Your task to perform on an android device: turn off javascript in the chrome app Image 0: 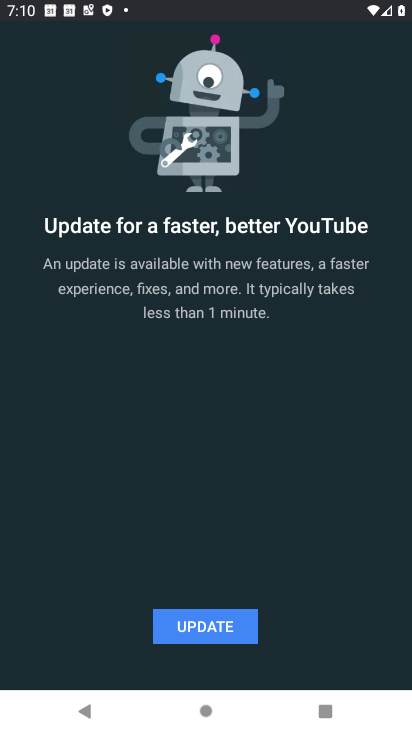
Step 0: press back button
Your task to perform on an android device: turn off javascript in the chrome app Image 1: 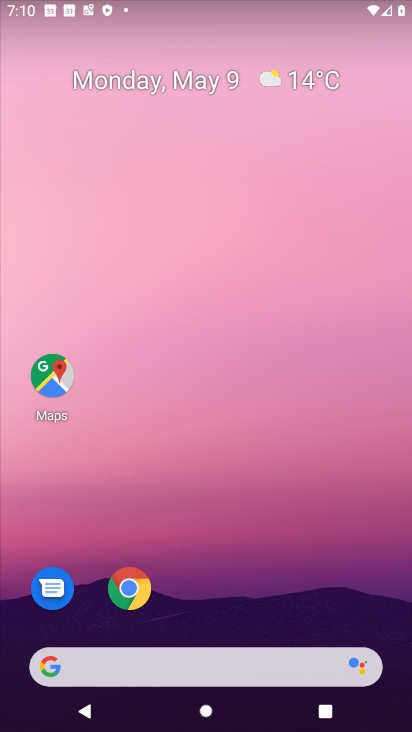
Step 1: drag from (334, 610) to (320, 48)
Your task to perform on an android device: turn off javascript in the chrome app Image 2: 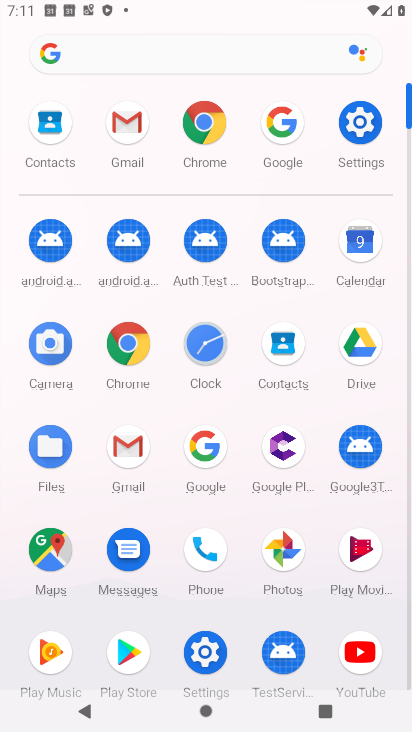
Step 2: click (135, 344)
Your task to perform on an android device: turn off javascript in the chrome app Image 3: 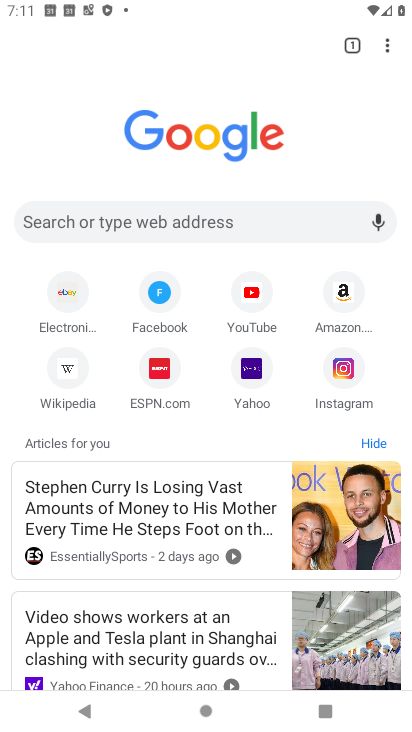
Step 3: click (385, 44)
Your task to perform on an android device: turn off javascript in the chrome app Image 4: 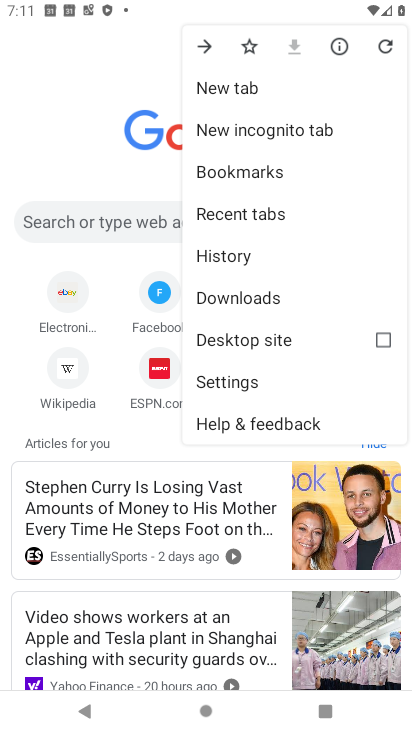
Step 4: click (242, 376)
Your task to perform on an android device: turn off javascript in the chrome app Image 5: 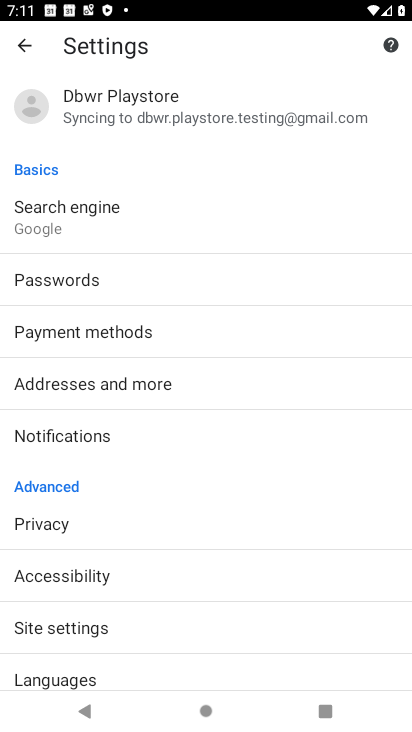
Step 5: click (59, 635)
Your task to perform on an android device: turn off javascript in the chrome app Image 6: 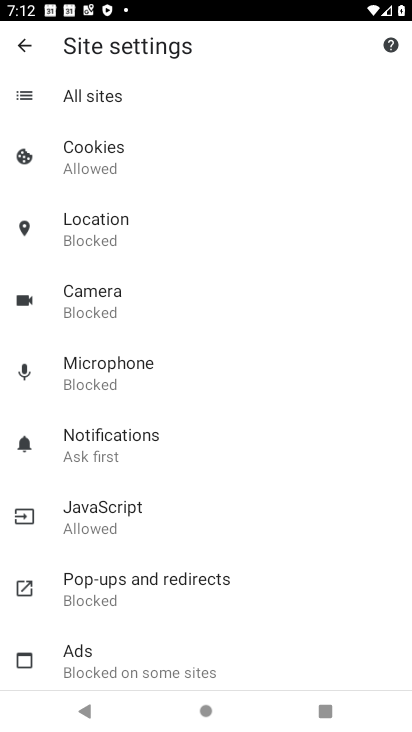
Step 6: click (155, 510)
Your task to perform on an android device: turn off javascript in the chrome app Image 7: 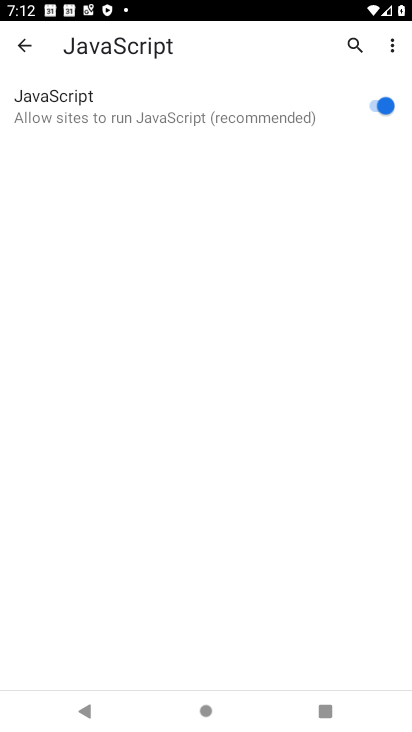
Step 7: click (373, 101)
Your task to perform on an android device: turn off javascript in the chrome app Image 8: 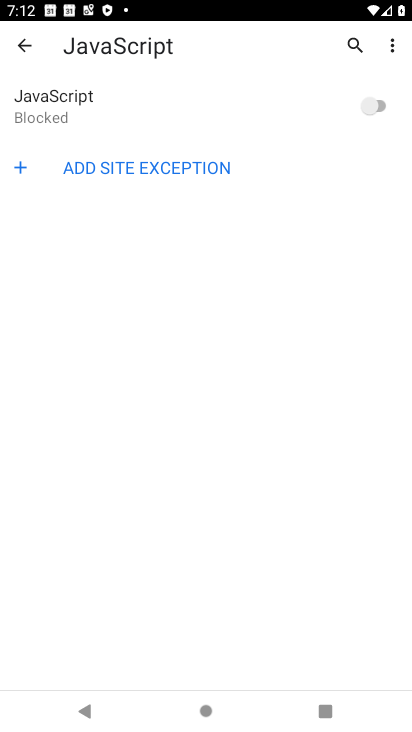
Step 8: task complete